Your task to perform on an android device: delete a single message in the gmail app Image 0: 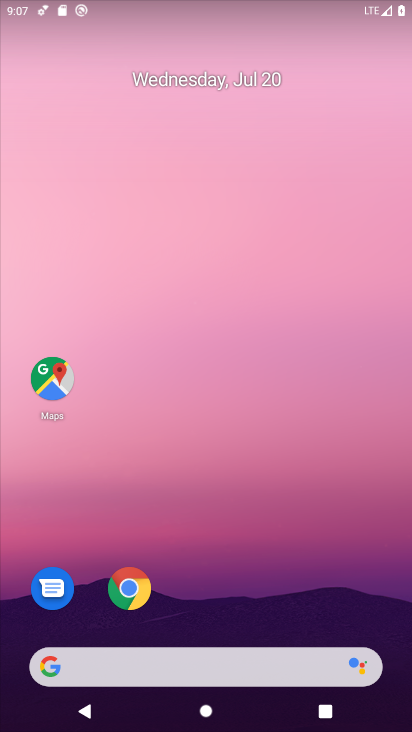
Step 0: press home button
Your task to perform on an android device: delete a single message in the gmail app Image 1: 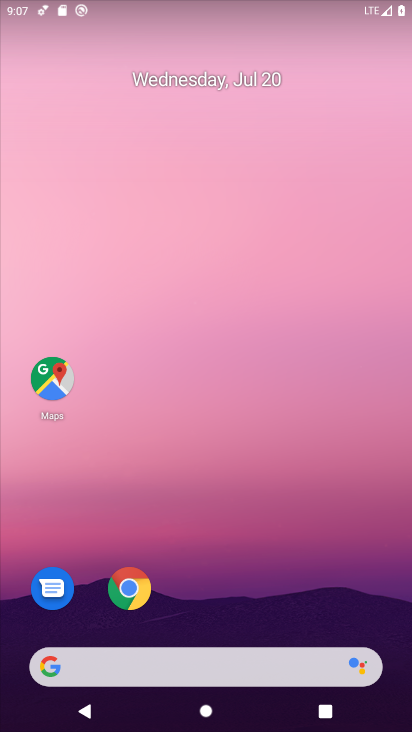
Step 1: drag from (231, 627) to (274, 41)
Your task to perform on an android device: delete a single message in the gmail app Image 2: 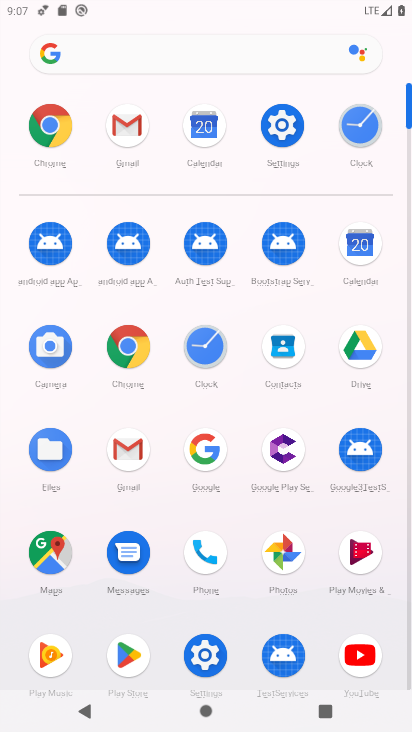
Step 2: click (122, 120)
Your task to perform on an android device: delete a single message in the gmail app Image 3: 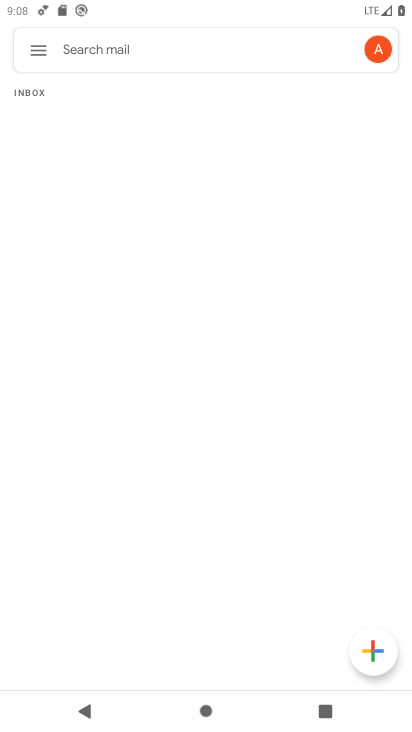
Step 3: click (31, 41)
Your task to perform on an android device: delete a single message in the gmail app Image 4: 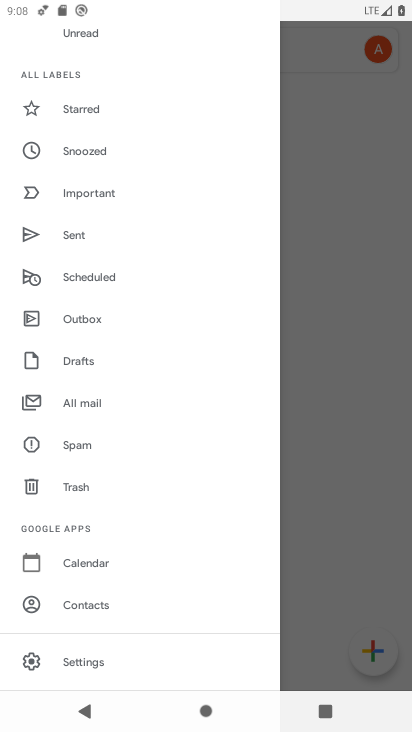
Step 4: click (91, 403)
Your task to perform on an android device: delete a single message in the gmail app Image 5: 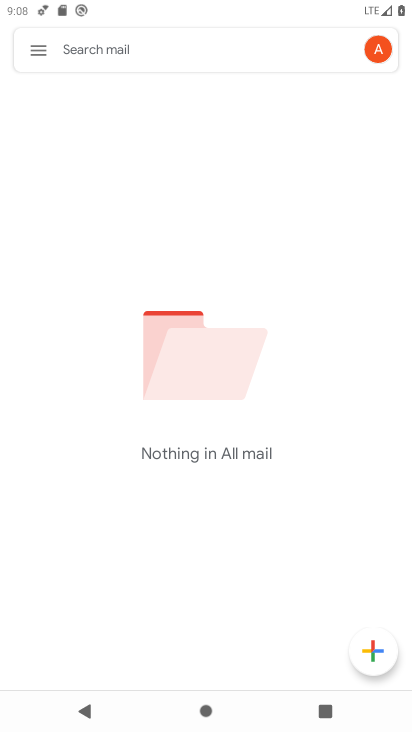
Step 5: task complete